Your task to perform on an android device: find photos in the google photos app Image 0: 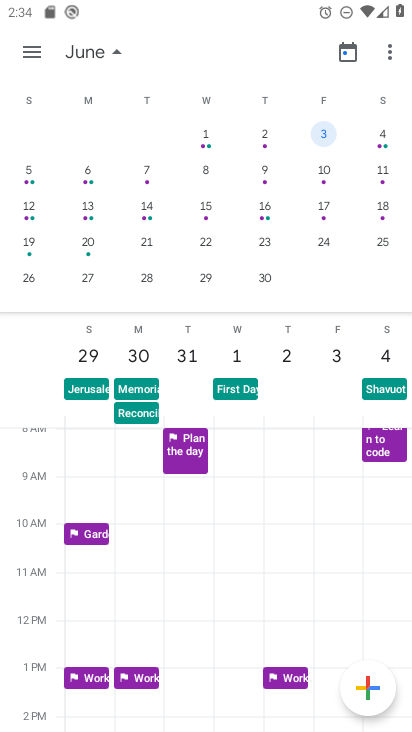
Step 0: press home button
Your task to perform on an android device: find photos in the google photos app Image 1: 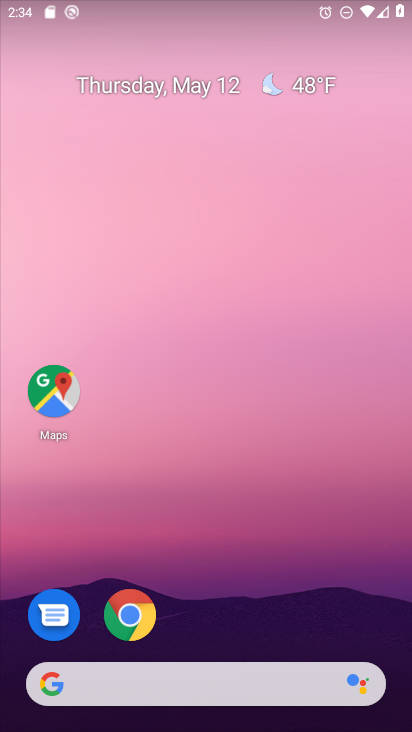
Step 1: drag from (372, 663) to (364, 3)
Your task to perform on an android device: find photos in the google photos app Image 2: 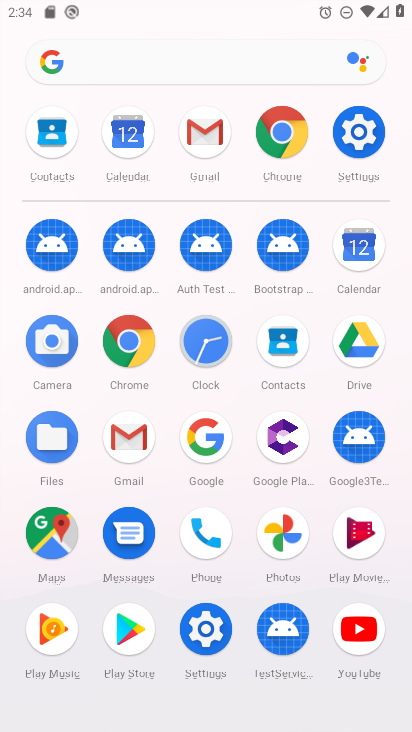
Step 2: click (280, 538)
Your task to perform on an android device: find photos in the google photos app Image 3: 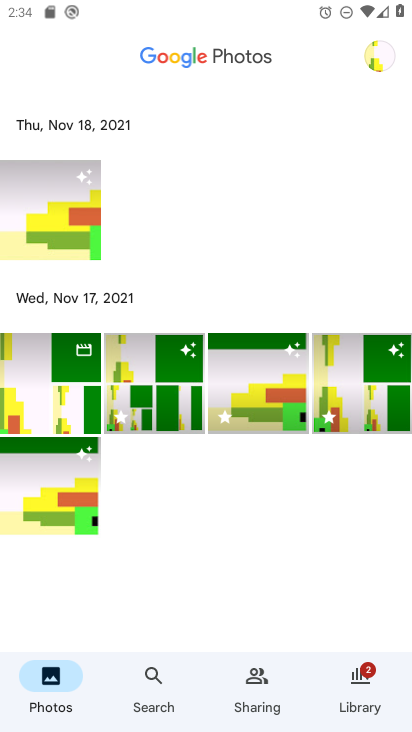
Step 3: task complete